Your task to perform on an android device: Go to eBay Image 0: 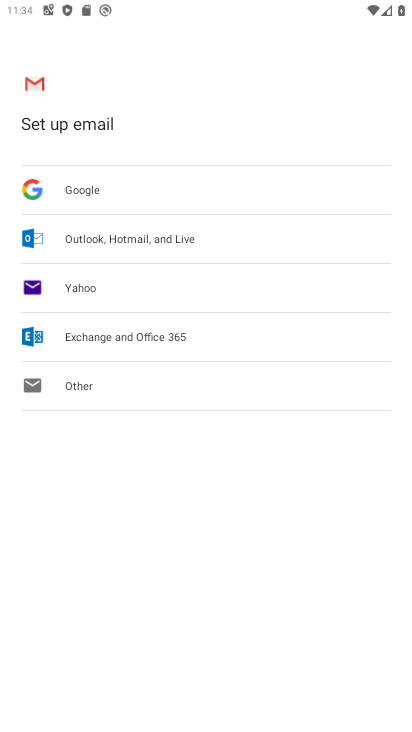
Step 0: press home button
Your task to perform on an android device: Go to eBay Image 1: 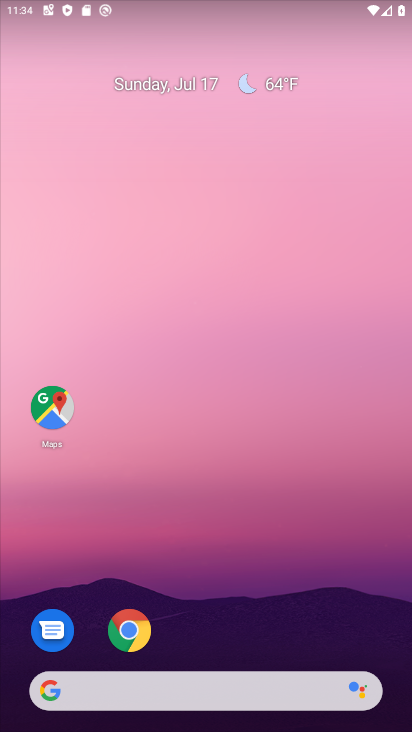
Step 1: click (130, 632)
Your task to perform on an android device: Go to eBay Image 2: 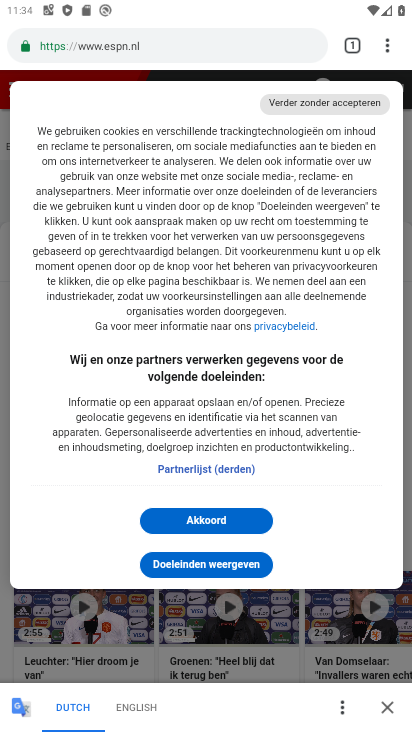
Step 2: click (172, 44)
Your task to perform on an android device: Go to eBay Image 3: 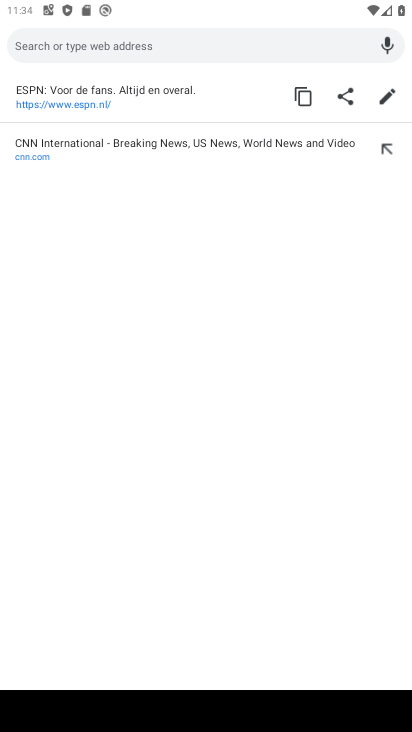
Step 3: type "eBay"
Your task to perform on an android device: Go to eBay Image 4: 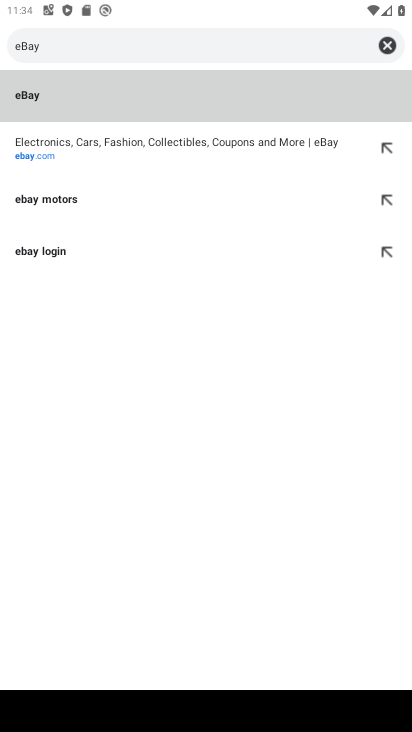
Step 4: click (31, 94)
Your task to perform on an android device: Go to eBay Image 5: 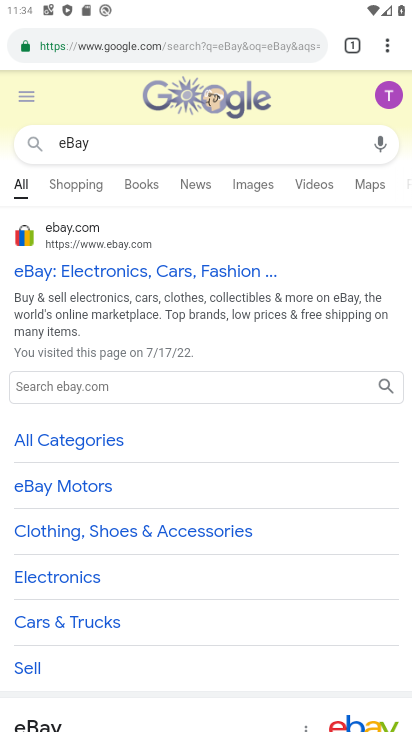
Step 5: click (55, 278)
Your task to perform on an android device: Go to eBay Image 6: 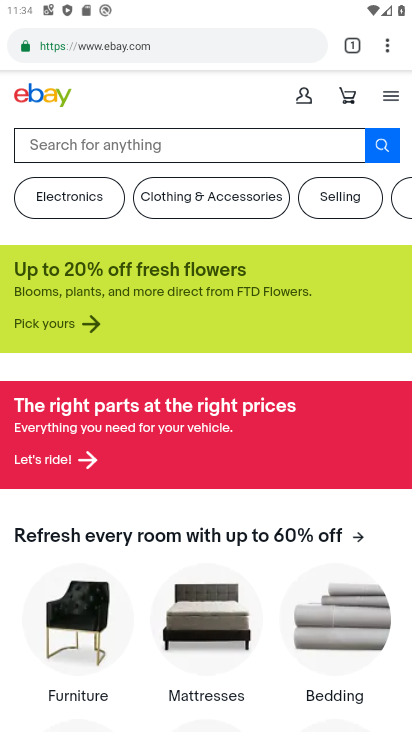
Step 6: task complete